Your task to perform on an android device: Open maps Image 0: 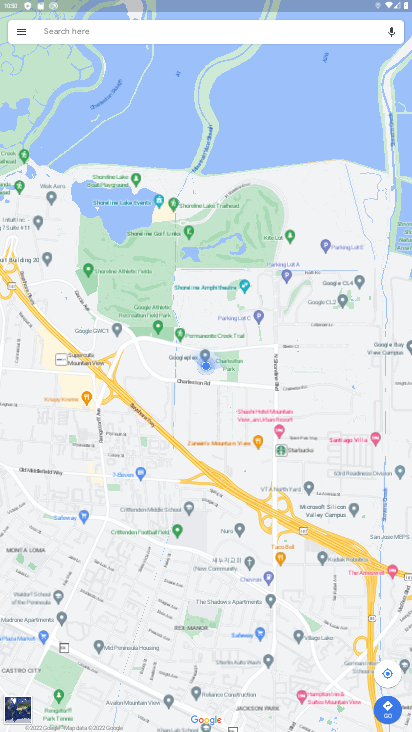
Step 0: drag from (135, 213) to (220, 538)
Your task to perform on an android device: Open maps Image 1: 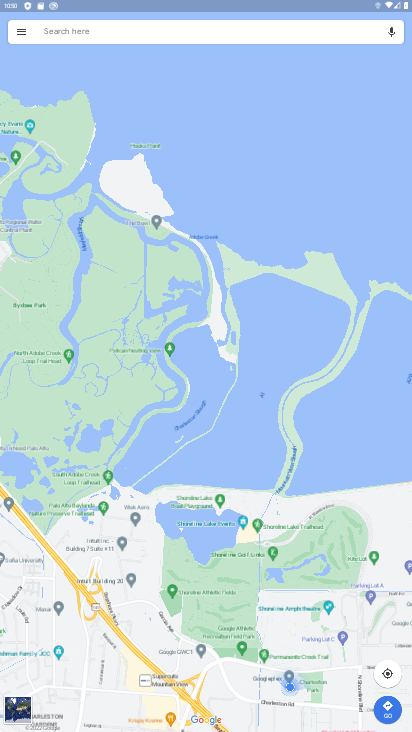
Step 1: task complete